Your task to perform on an android device: turn on airplane mode Image 0: 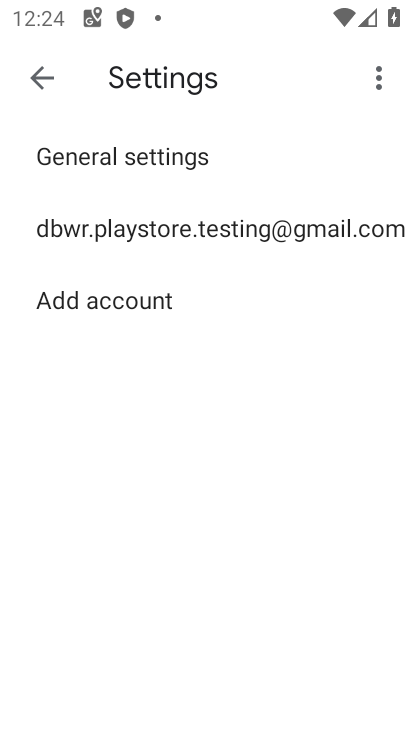
Step 0: press home button
Your task to perform on an android device: turn on airplane mode Image 1: 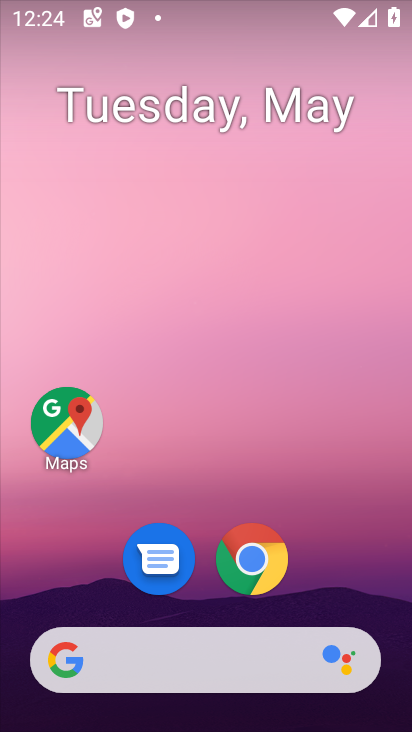
Step 1: drag from (360, 574) to (334, 91)
Your task to perform on an android device: turn on airplane mode Image 2: 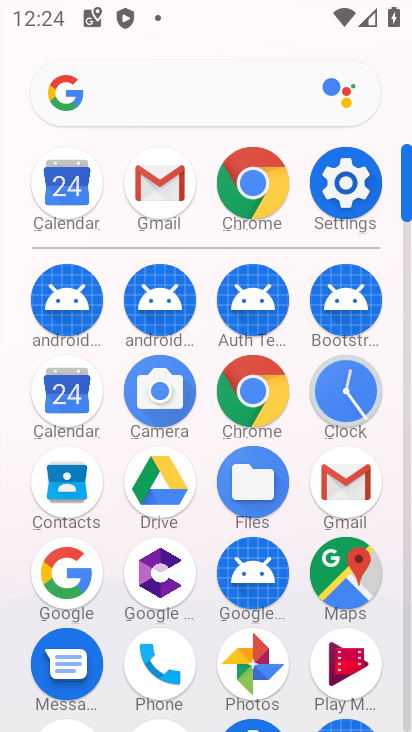
Step 2: click (358, 151)
Your task to perform on an android device: turn on airplane mode Image 3: 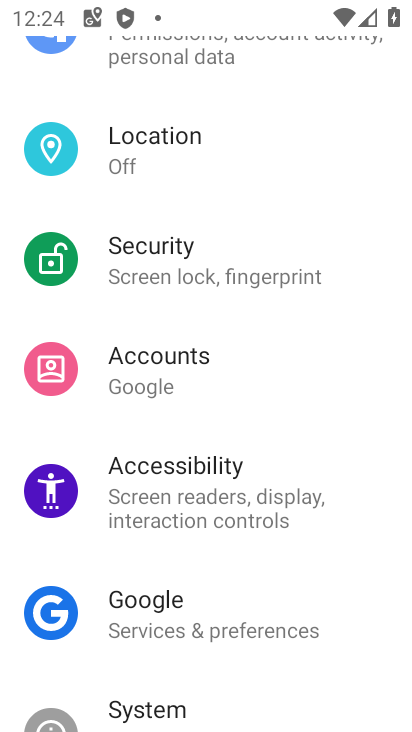
Step 3: drag from (307, 161) to (288, 690)
Your task to perform on an android device: turn on airplane mode Image 4: 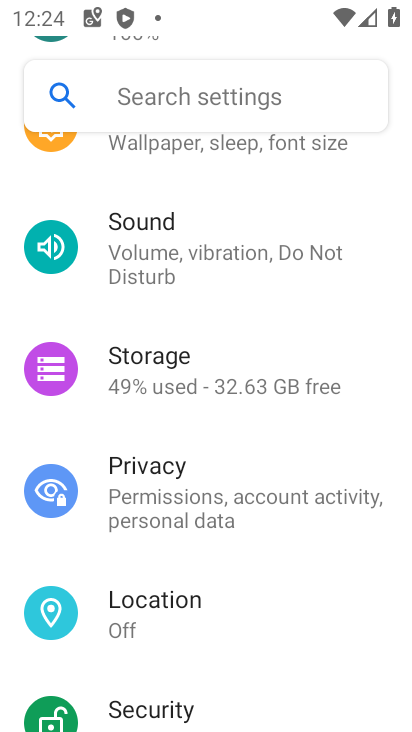
Step 4: drag from (255, 165) to (251, 682)
Your task to perform on an android device: turn on airplane mode Image 5: 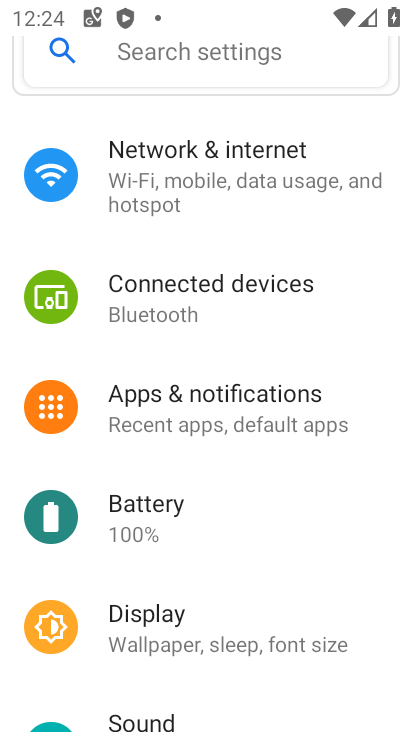
Step 5: click (242, 221)
Your task to perform on an android device: turn on airplane mode Image 6: 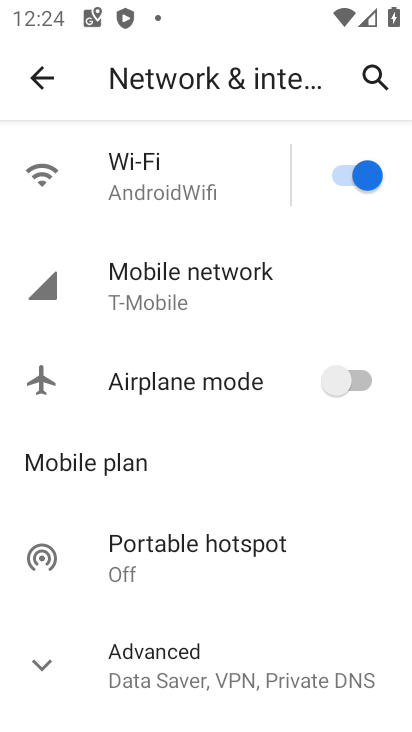
Step 6: click (347, 377)
Your task to perform on an android device: turn on airplane mode Image 7: 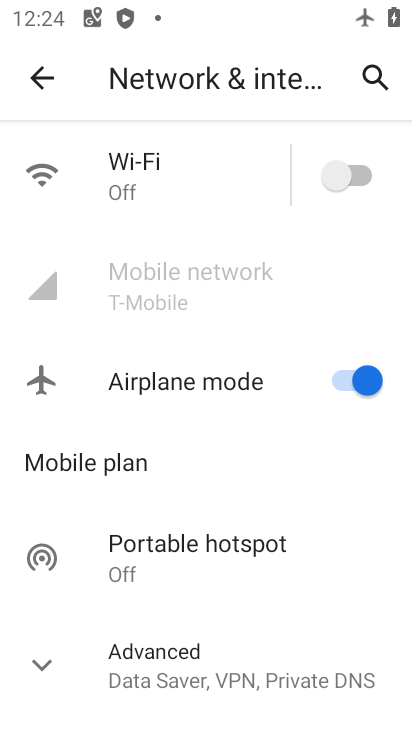
Step 7: click (352, 186)
Your task to perform on an android device: turn on airplane mode Image 8: 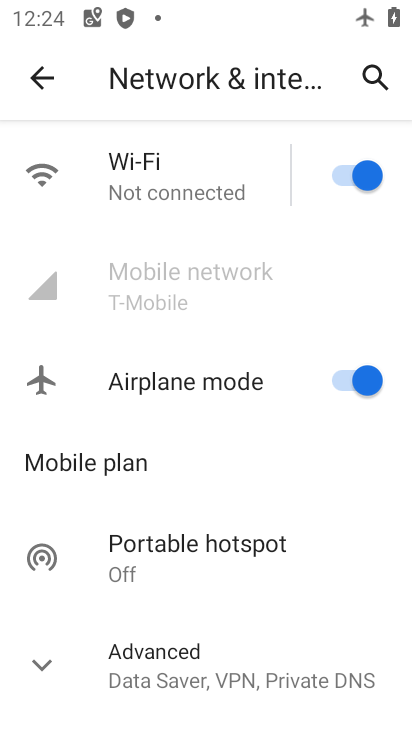
Step 8: task complete